Your task to perform on an android device: open app "Google Duo" Image 0: 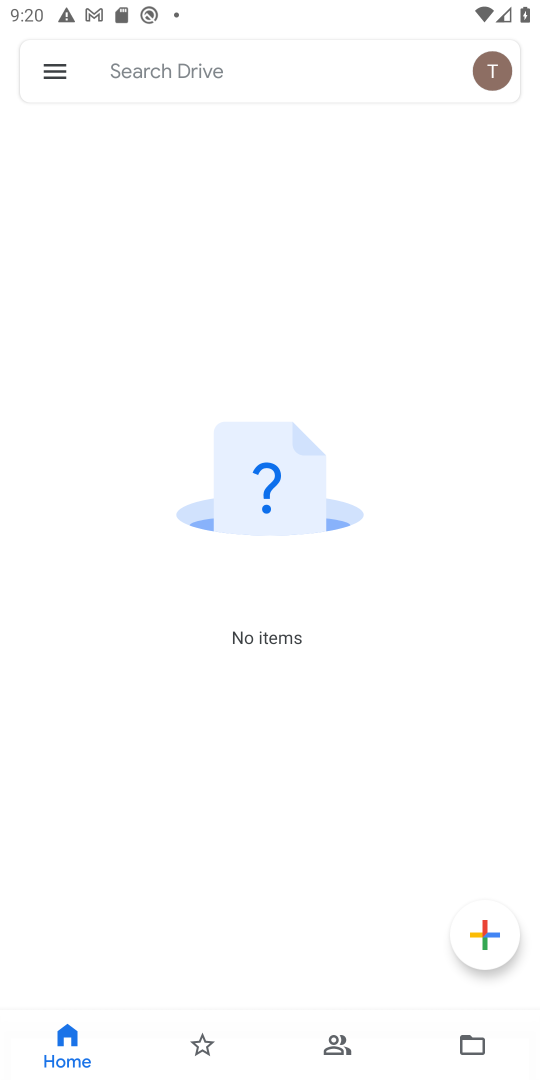
Step 0: press home button
Your task to perform on an android device: open app "Google Duo" Image 1: 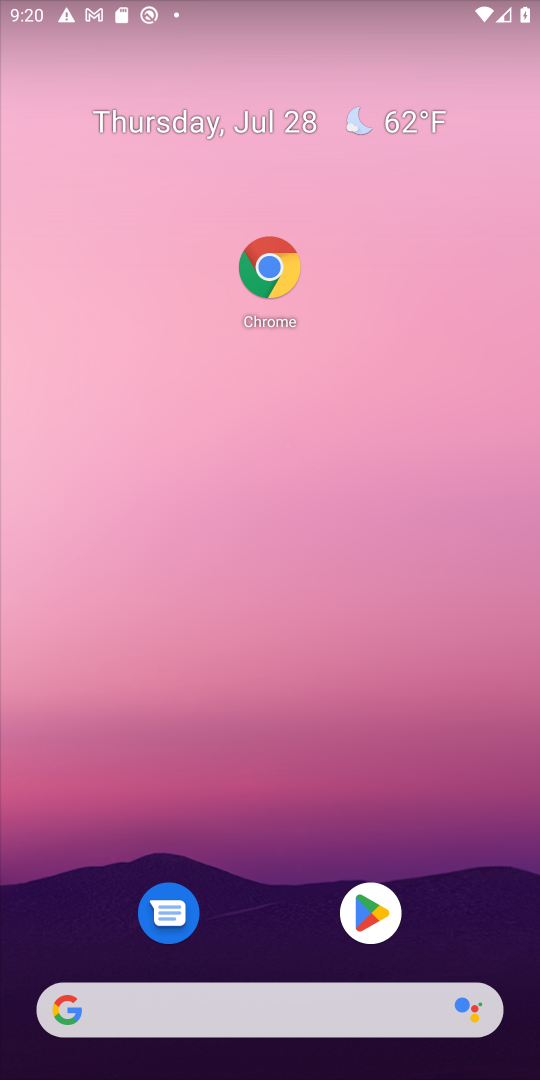
Step 1: click (388, 908)
Your task to perform on an android device: open app "Google Duo" Image 2: 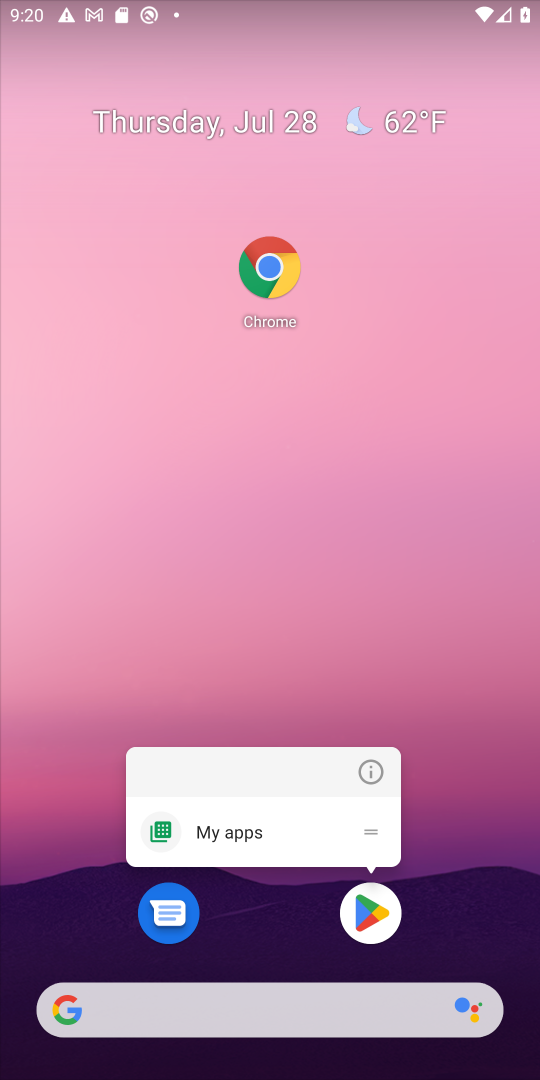
Step 2: click (388, 919)
Your task to perform on an android device: open app "Google Duo" Image 3: 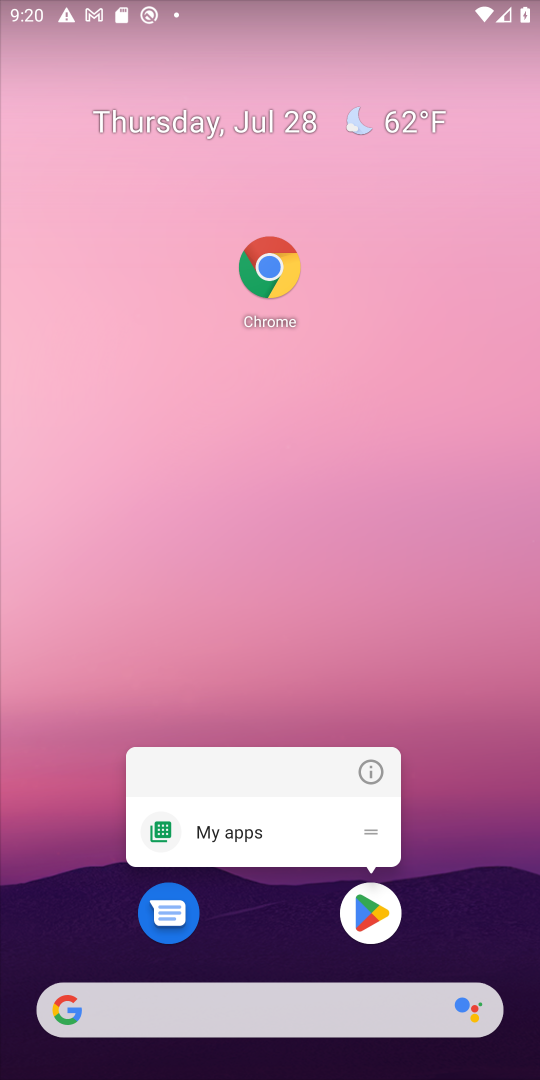
Step 3: click (380, 871)
Your task to perform on an android device: open app "Google Duo" Image 4: 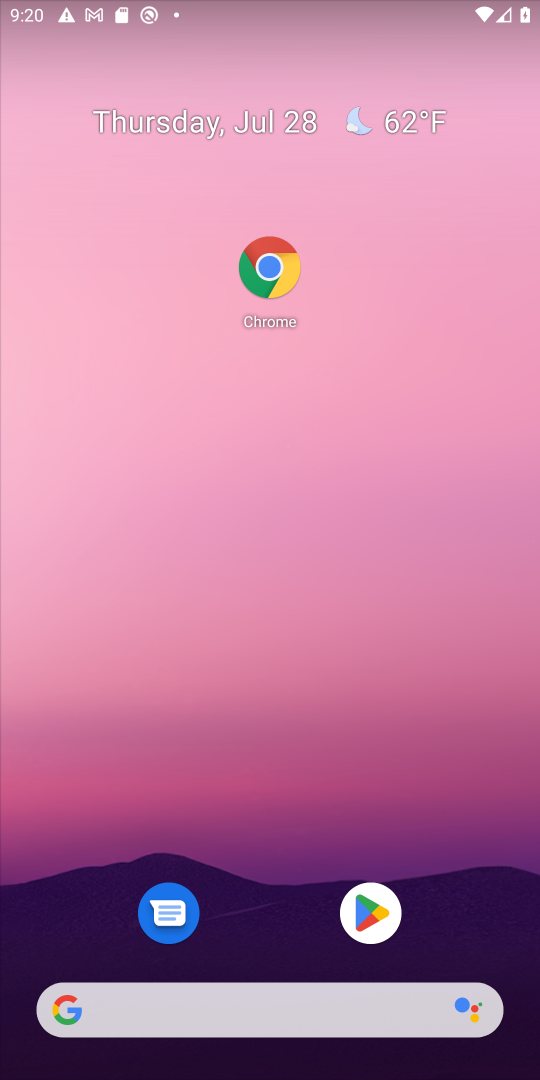
Step 4: drag from (302, 708) to (186, 268)
Your task to perform on an android device: open app "Google Duo" Image 5: 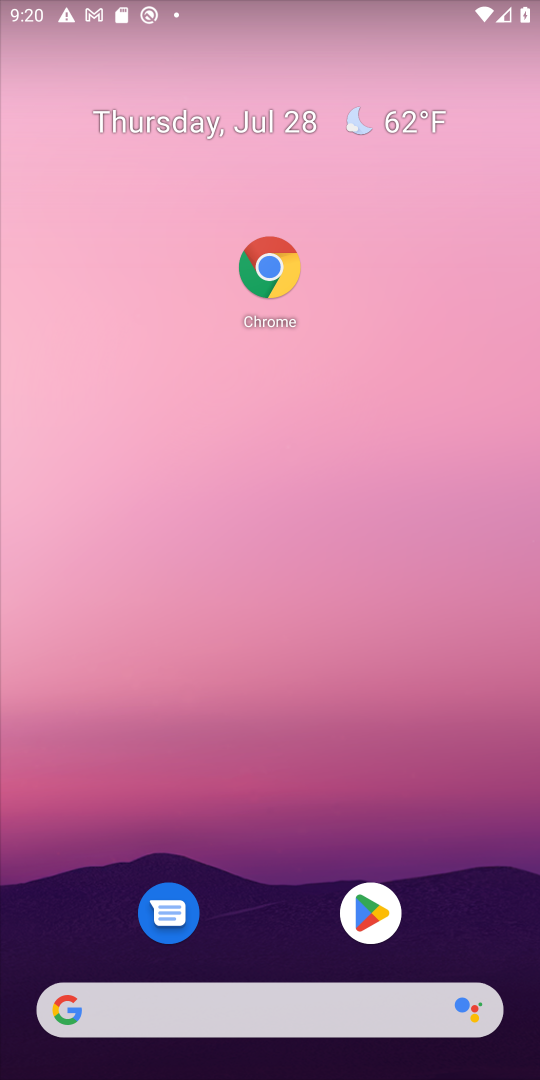
Step 5: drag from (430, 1043) to (199, 161)
Your task to perform on an android device: open app "Google Duo" Image 6: 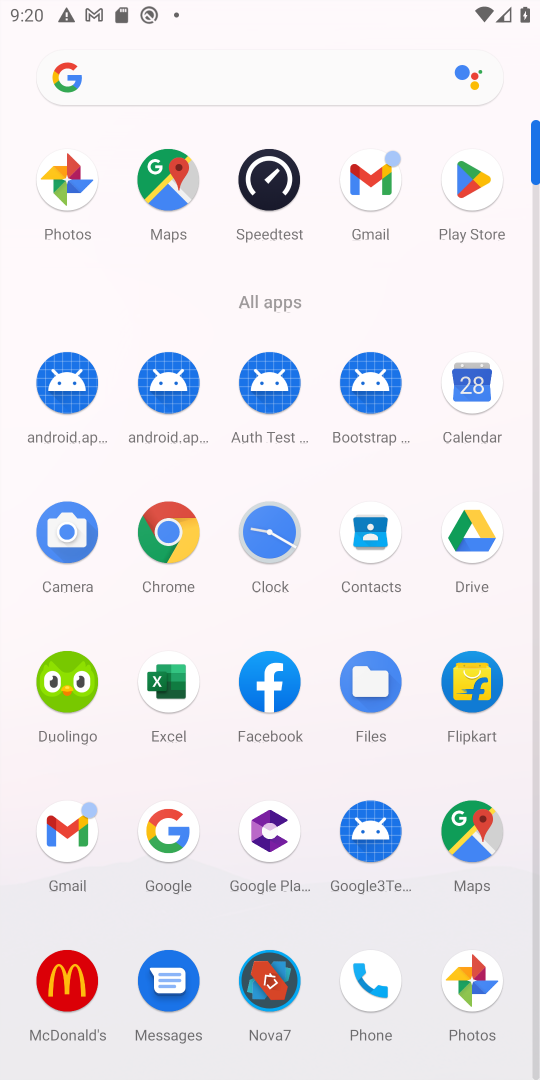
Step 6: click (452, 189)
Your task to perform on an android device: open app "Google Duo" Image 7: 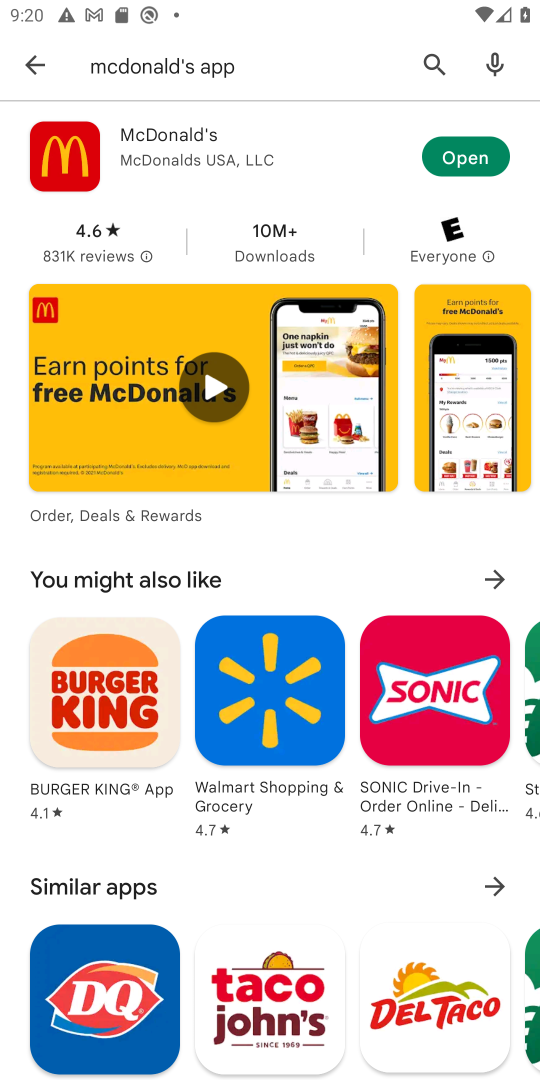
Step 7: click (430, 72)
Your task to perform on an android device: open app "Google Duo" Image 8: 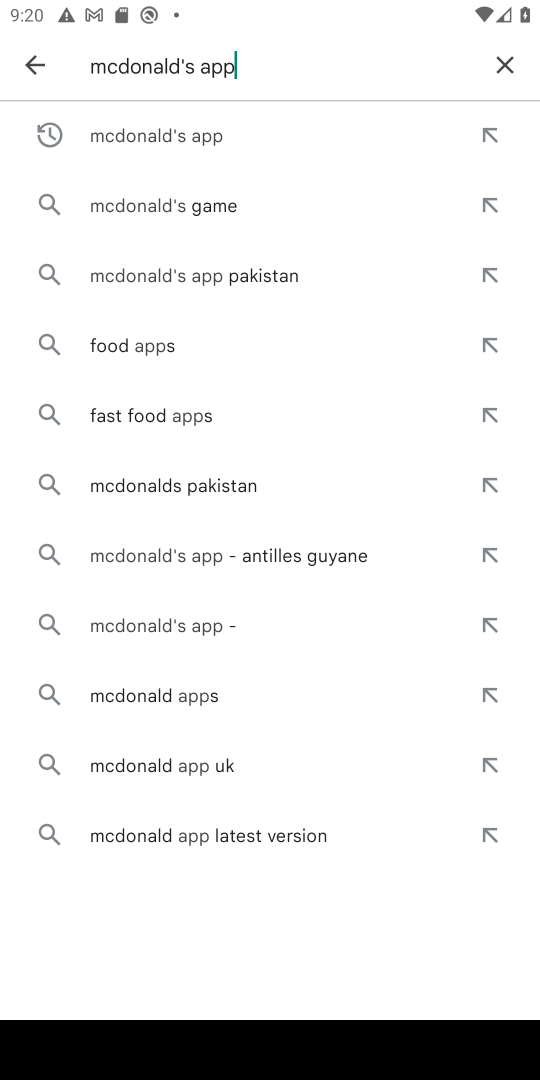
Step 8: click (507, 65)
Your task to perform on an android device: open app "Google Duo" Image 9: 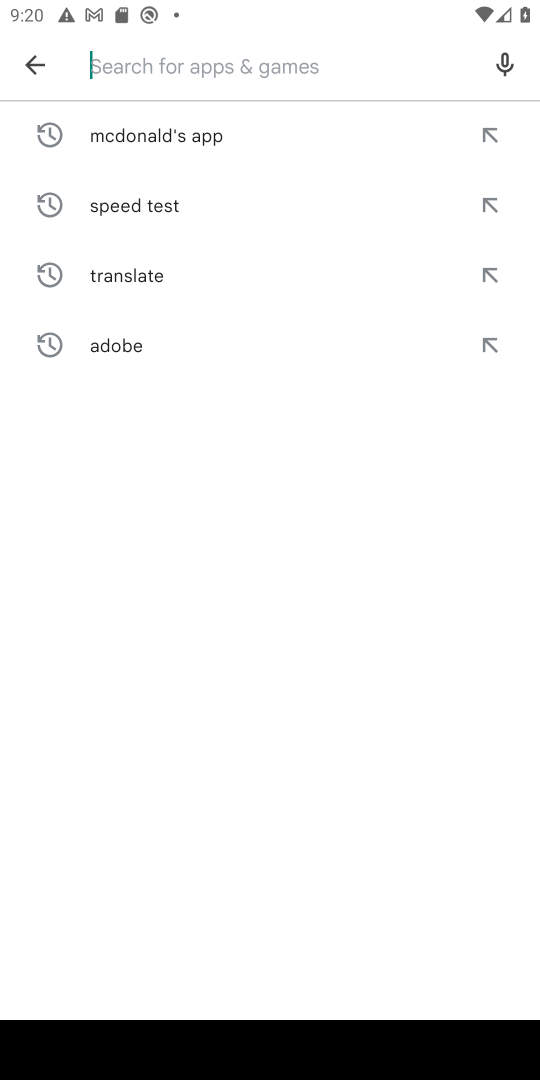
Step 9: type "duo"
Your task to perform on an android device: open app "Google Duo" Image 10: 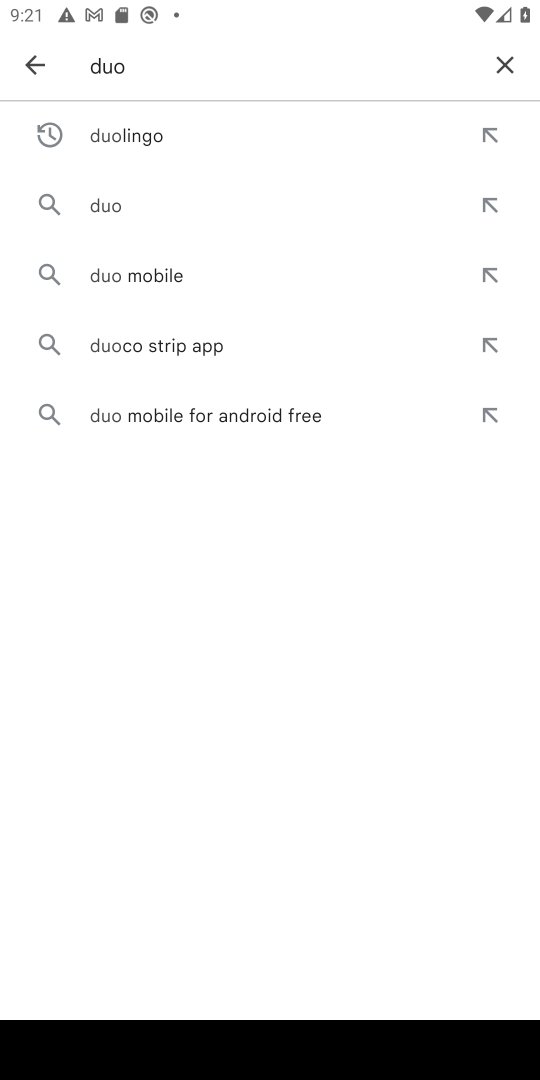
Step 10: click (167, 216)
Your task to perform on an android device: open app "Google Duo" Image 11: 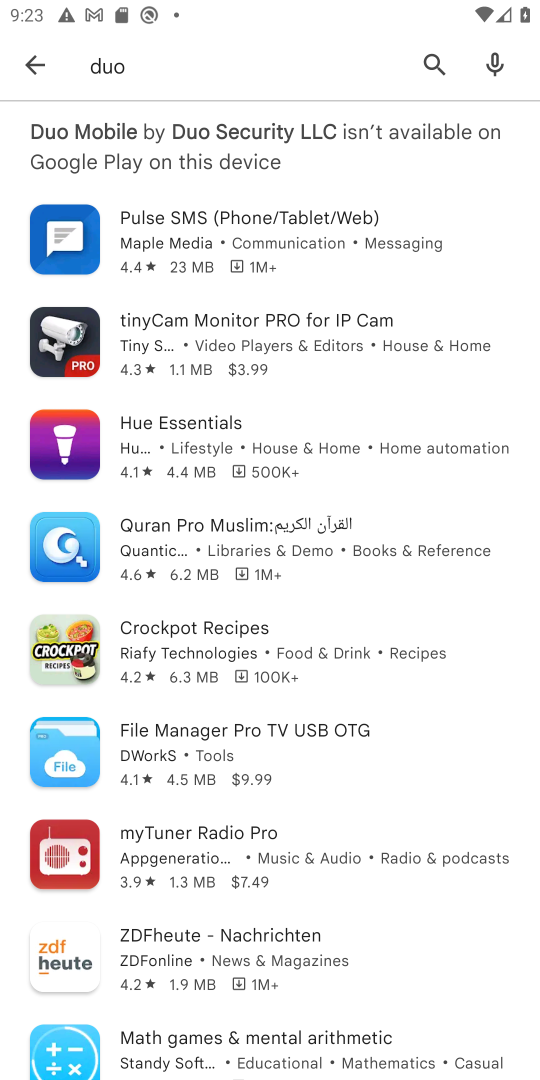
Step 11: task complete